Your task to perform on an android device: Open calendar and show me the third week of next month Image 0: 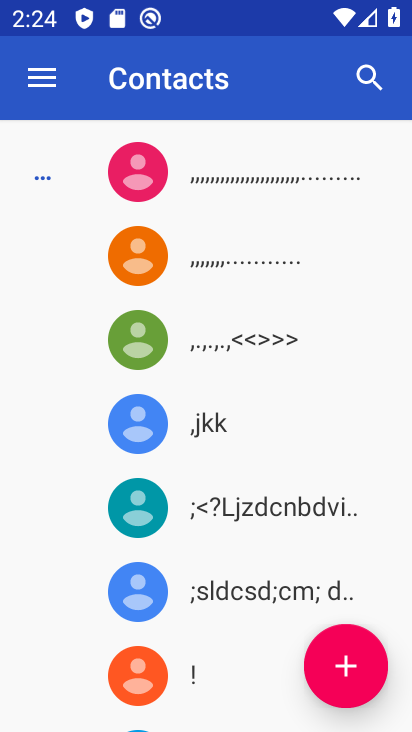
Step 0: press back button
Your task to perform on an android device: Open calendar and show me the third week of next month Image 1: 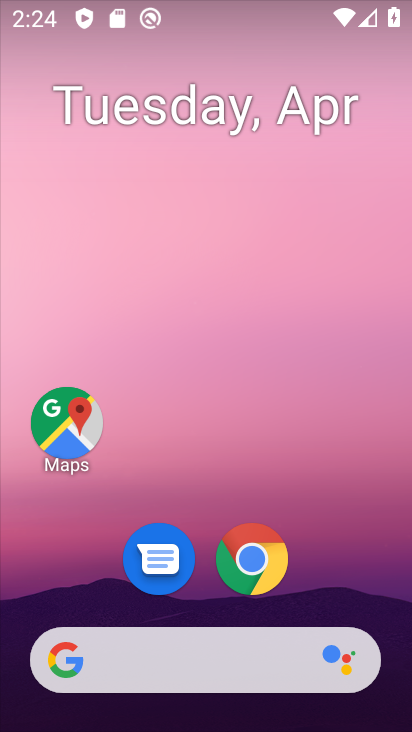
Step 1: drag from (125, 623) to (303, 162)
Your task to perform on an android device: Open calendar and show me the third week of next month Image 2: 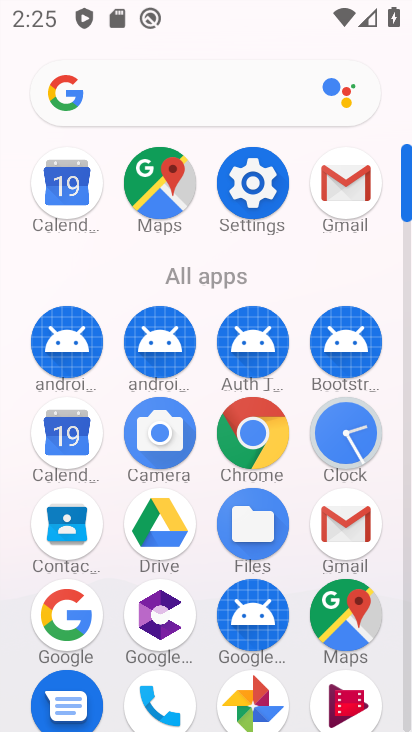
Step 2: click (69, 444)
Your task to perform on an android device: Open calendar and show me the third week of next month Image 3: 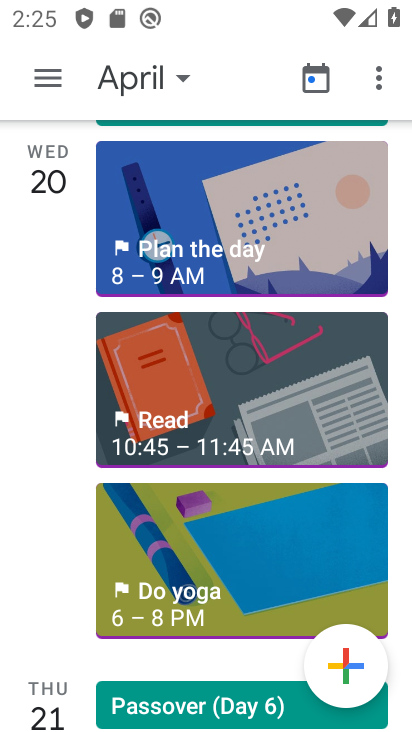
Step 3: click (135, 82)
Your task to perform on an android device: Open calendar and show me the third week of next month Image 4: 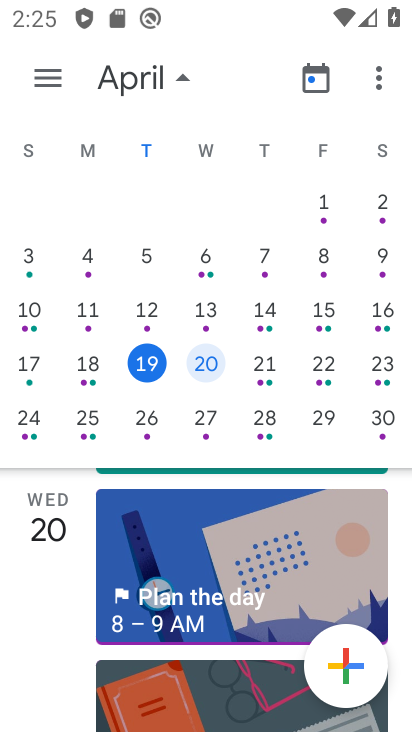
Step 4: drag from (338, 316) to (10, 311)
Your task to perform on an android device: Open calendar and show me the third week of next month Image 5: 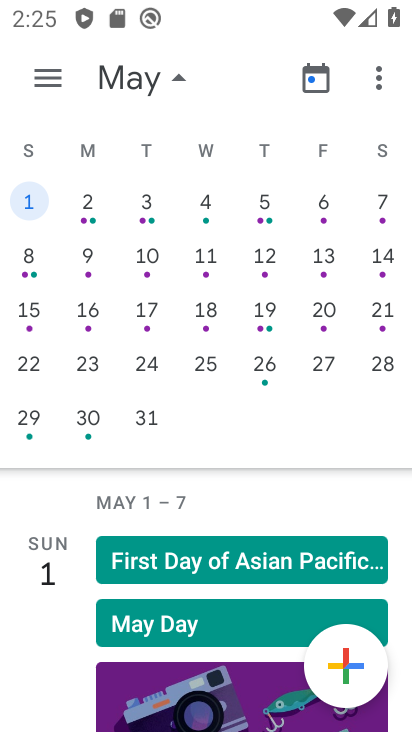
Step 5: click (34, 314)
Your task to perform on an android device: Open calendar and show me the third week of next month Image 6: 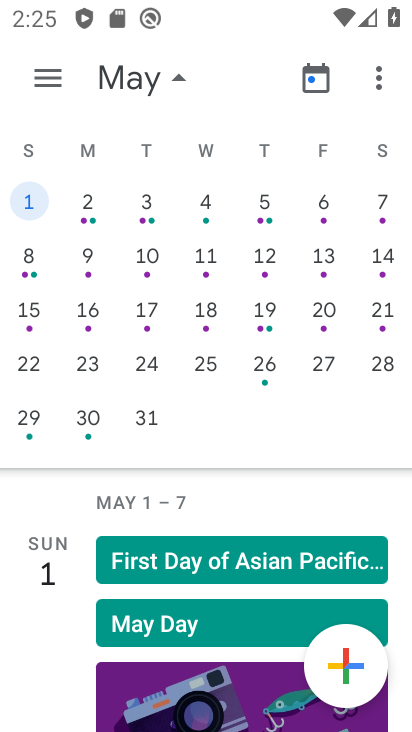
Step 6: click (29, 309)
Your task to perform on an android device: Open calendar and show me the third week of next month Image 7: 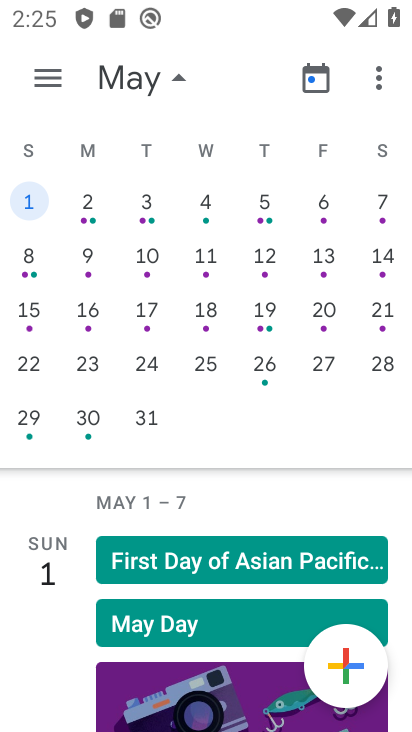
Step 7: click (21, 310)
Your task to perform on an android device: Open calendar and show me the third week of next month Image 8: 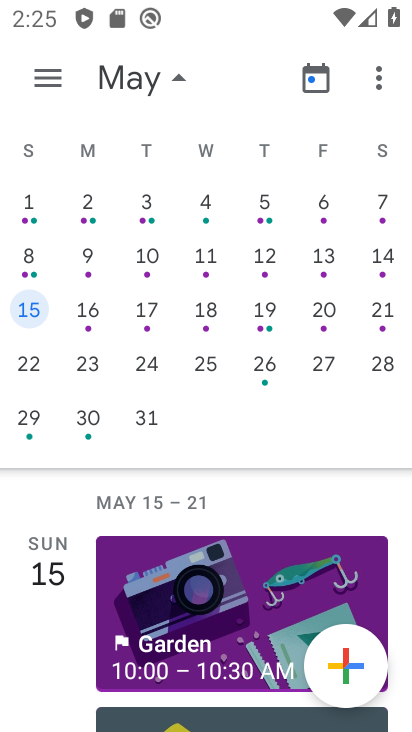
Step 8: click (41, 74)
Your task to perform on an android device: Open calendar and show me the third week of next month Image 9: 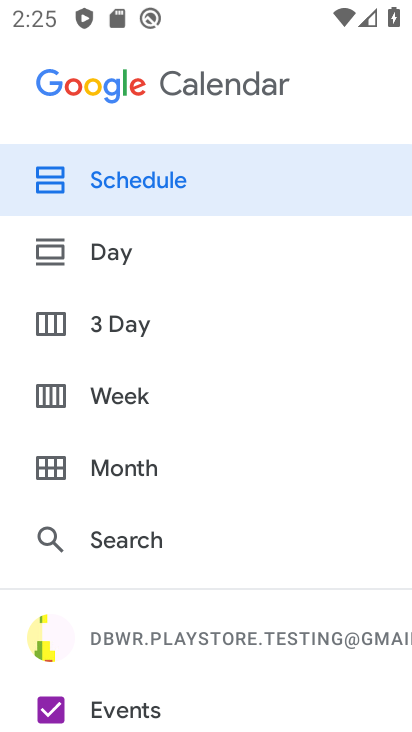
Step 9: click (111, 405)
Your task to perform on an android device: Open calendar and show me the third week of next month Image 10: 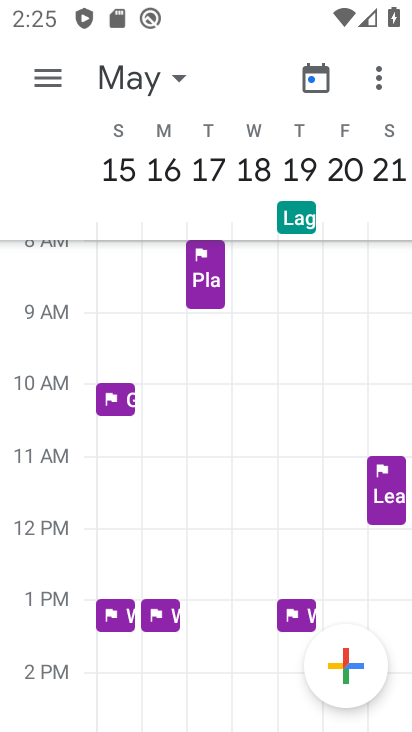
Step 10: task complete